Your task to perform on an android device: see sites visited before in the chrome app Image 0: 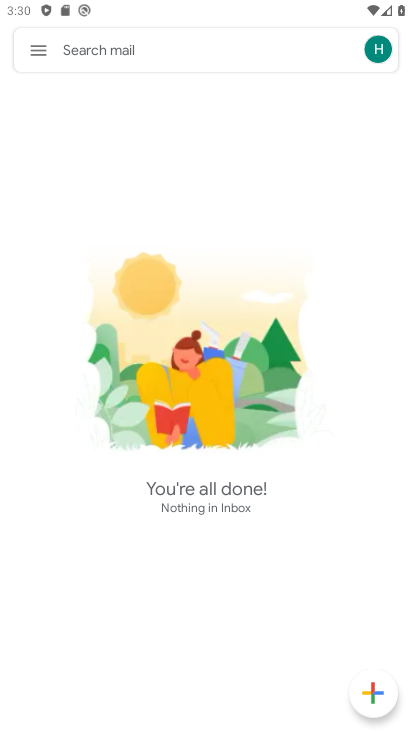
Step 0: press back button
Your task to perform on an android device: see sites visited before in the chrome app Image 1: 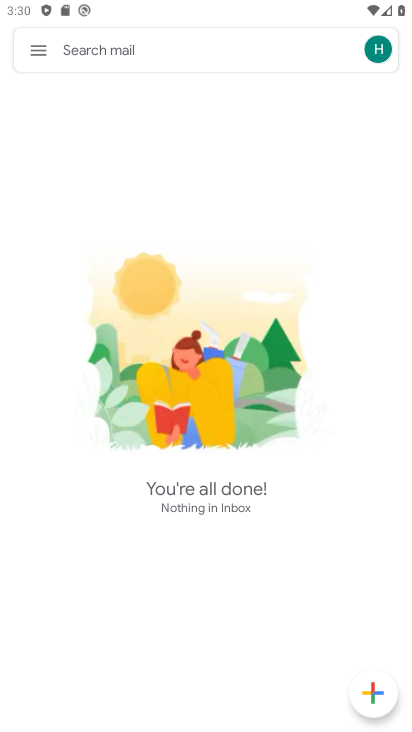
Step 1: press back button
Your task to perform on an android device: see sites visited before in the chrome app Image 2: 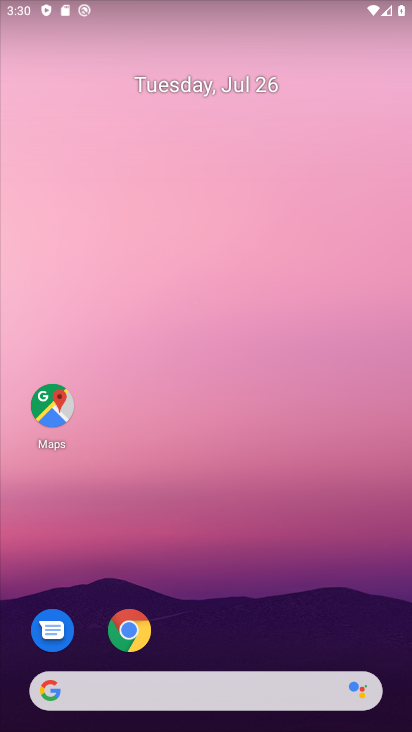
Step 2: drag from (169, 568) to (169, 117)
Your task to perform on an android device: see sites visited before in the chrome app Image 3: 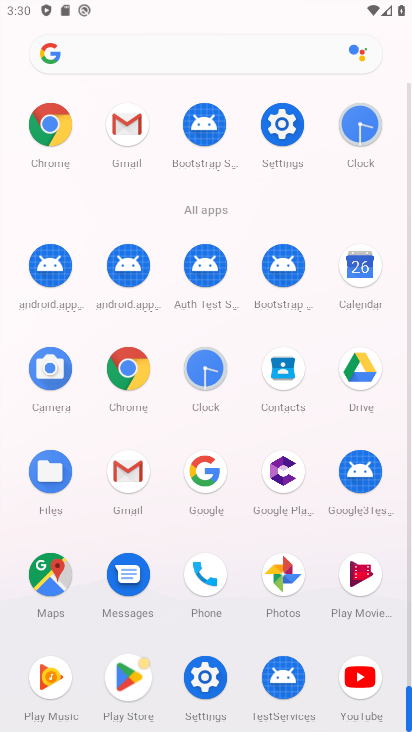
Step 3: click (49, 121)
Your task to perform on an android device: see sites visited before in the chrome app Image 4: 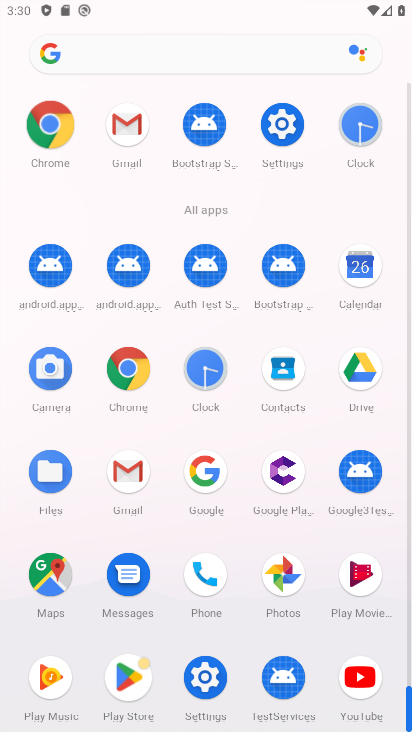
Step 4: click (50, 121)
Your task to perform on an android device: see sites visited before in the chrome app Image 5: 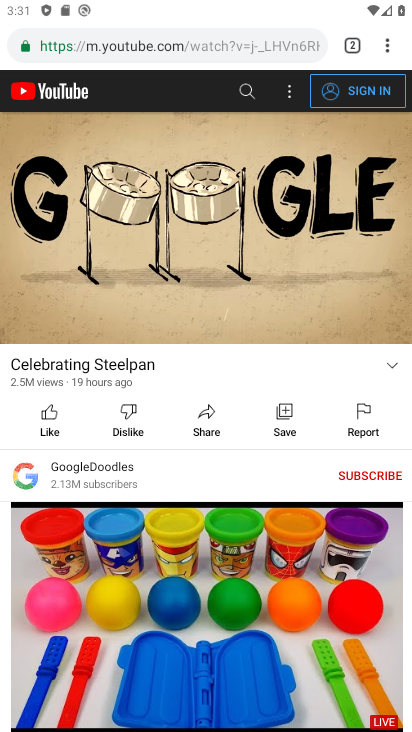
Step 5: click (384, 50)
Your task to perform on an android device: see sites visited before in the chrome app Image 6: 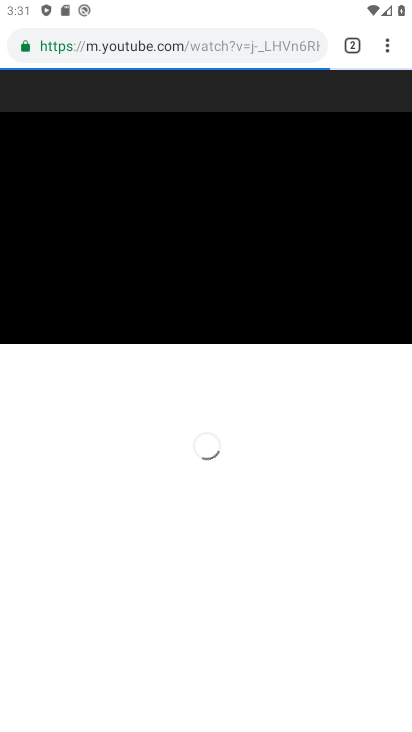
Step 6: drag from (381, 49) to (217, 224)
Your task to perform on an android device: see sites visited before in the chrome app Image 7: 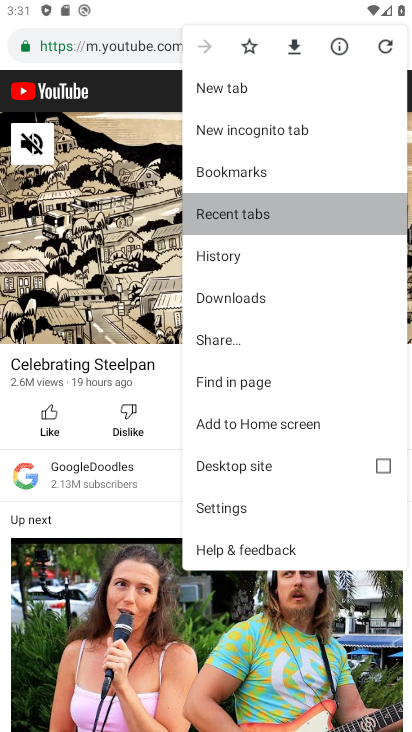
Step 7: click (216, 225)
Your task to perform on an android device: see sites visited before in the chrome app Image 8: 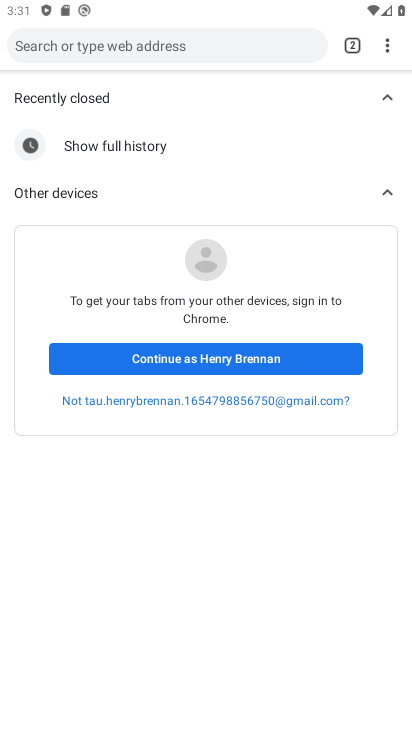
Step 8: task complete